Your task to perform on an android device: Open Google Chrome and open the bookmarks view Image 0: 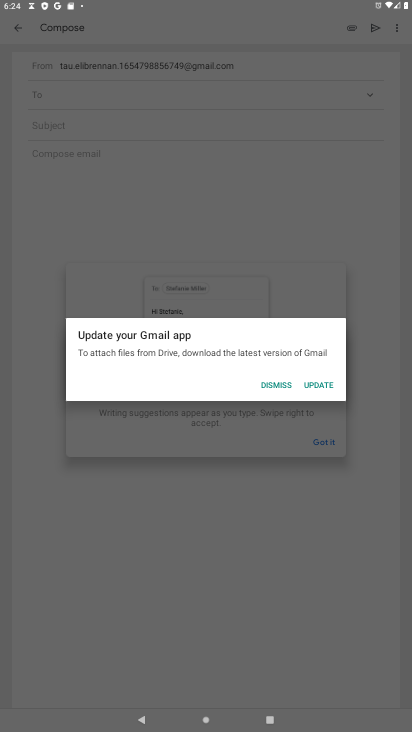
Step 0: press home button
Your task to perform on an android device: Open Google Chrome and open the bookmarks view Image 1: 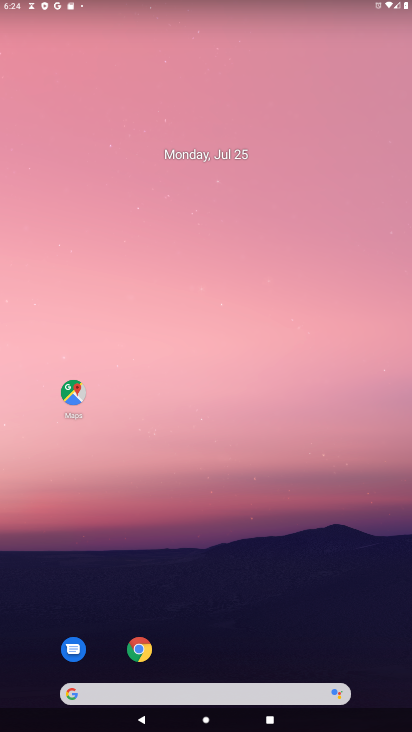
Step 1: drag from (291, 631) to (342, 128)
Your task to perform on an android device: Open Google Chrome and open the bookmarks view Image 2: 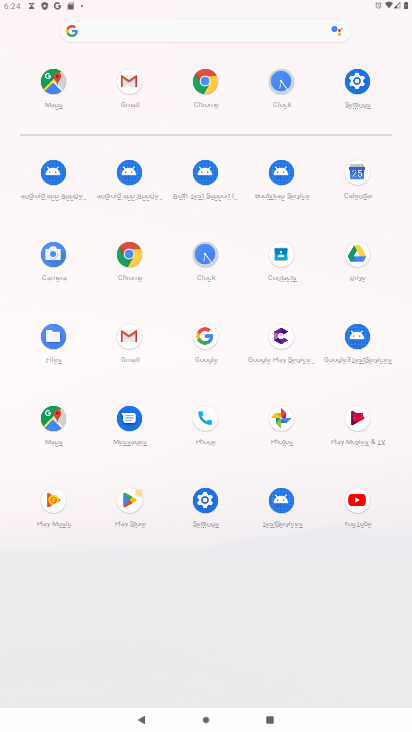
Step 2: click (131, 254)
Your task to perform on an android device: Open Google Chrome and open the bookmarks view Image 3: 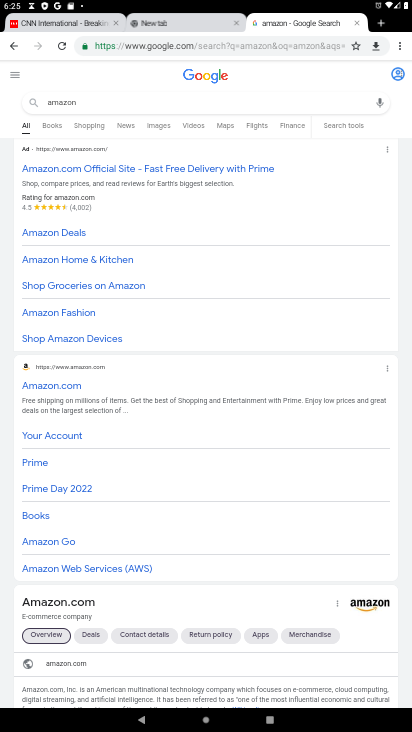
Step 3: task complete